Your task to perform on an android device: When is my next meeting? Image 0: 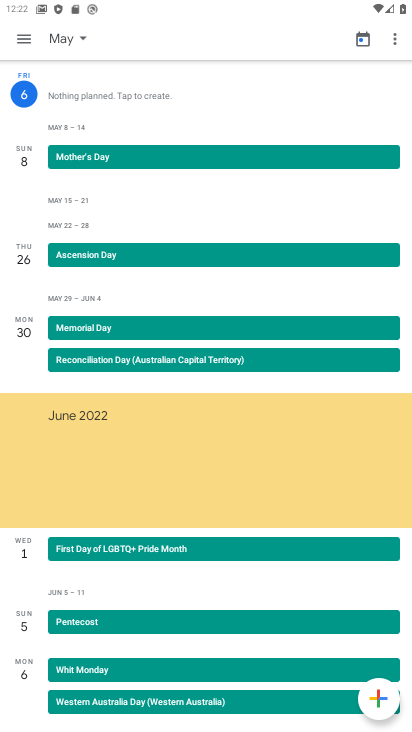
Step 0: task complete